Your task to perform on an android device: Go to Wikipedia Image 0: 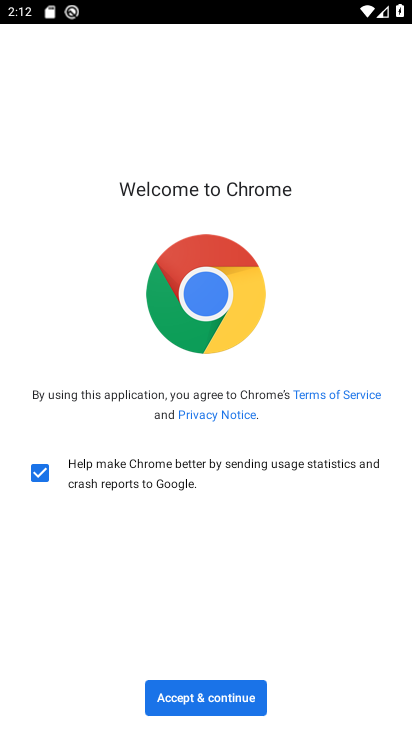
Step 0: click (228, 694)
Your task to perform on an android device: Go to Wikipedia Image 1: 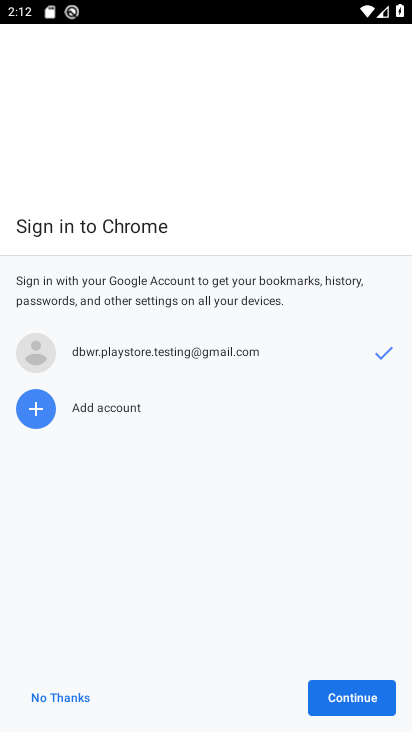
Step 1: click (355, 691)
Your task to perform on an android device: Go to Wikipedia Image 2: 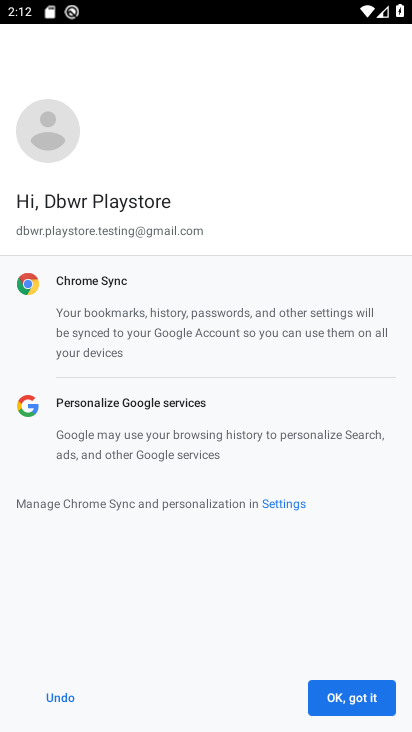
Step 2: click (355, 691)
Your task to perform on an android device: Go to Wikipedia Image 3: 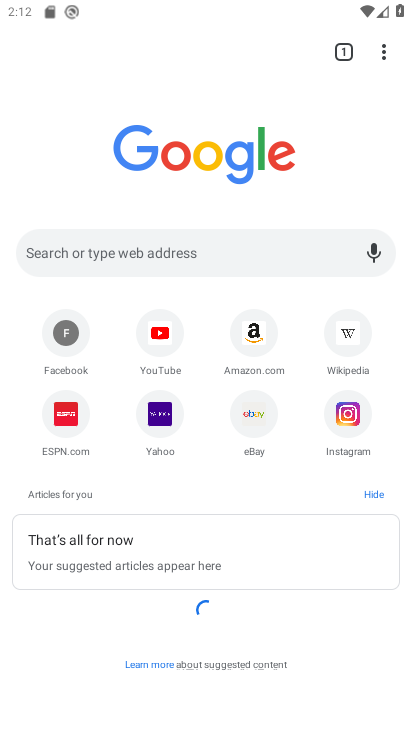
Step 3: click (348, 331)
Your task to perform on an android device: Go to Wikipedia Image 4: 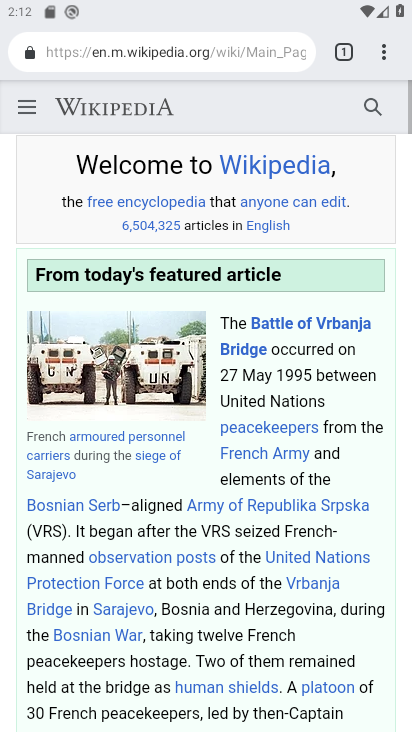
Step 4: task complete